Your task to perform on an android device: remove spam from my inbox in the gmail app Image 0: 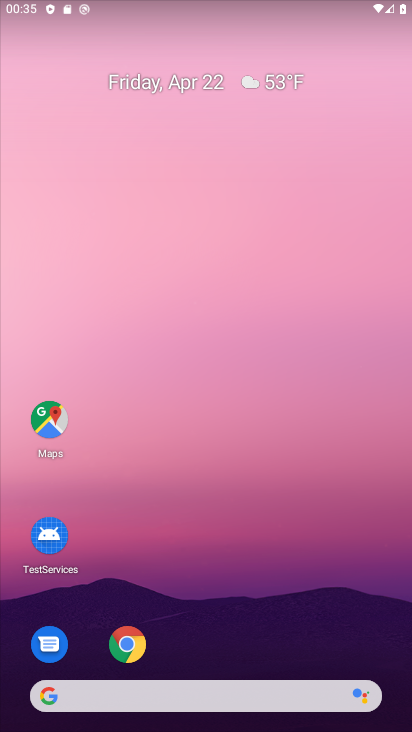
Step 0: drag from (251, 619) to (326, 89)
Your task to perform on an android device: remove spam from my inbox in the gmail app Image 1: 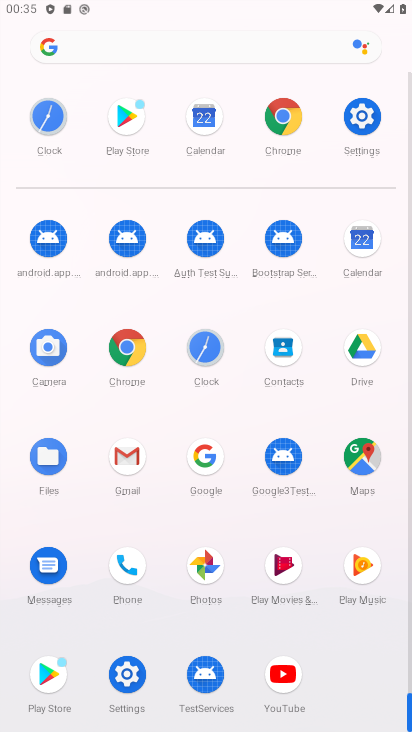
Step 1: click (129, 449)
Your task to perform on an android device: remove spam from my inbox in the gmail app Image 2: 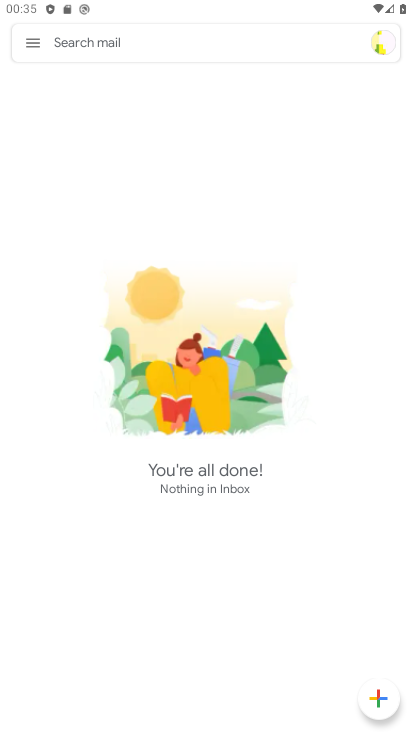
Step 2: click (32, 35)
Your task to perform on an android device: remove spam from my inbox in the gmail app Image 3: 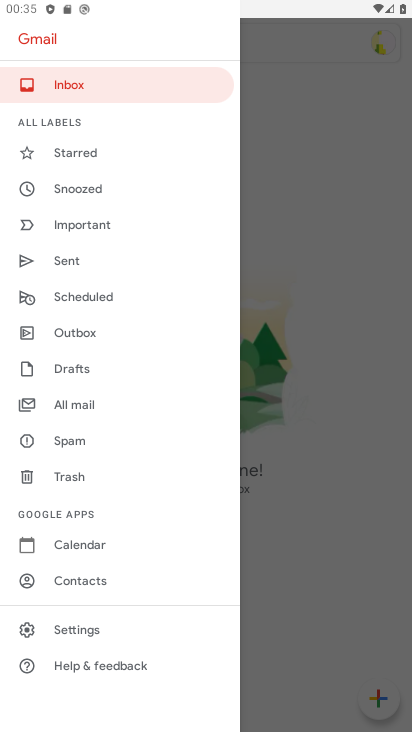
Step 3: click (78, 434)
Your task to perform on an android device: remove spam from my inbox in the gmail app Image 4: 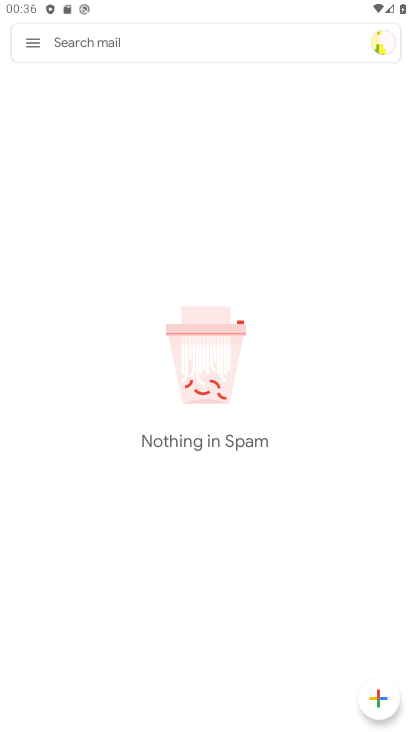
Step 4: task complete